Your task to perform on an android device: install app "Google Keep" Image 0: 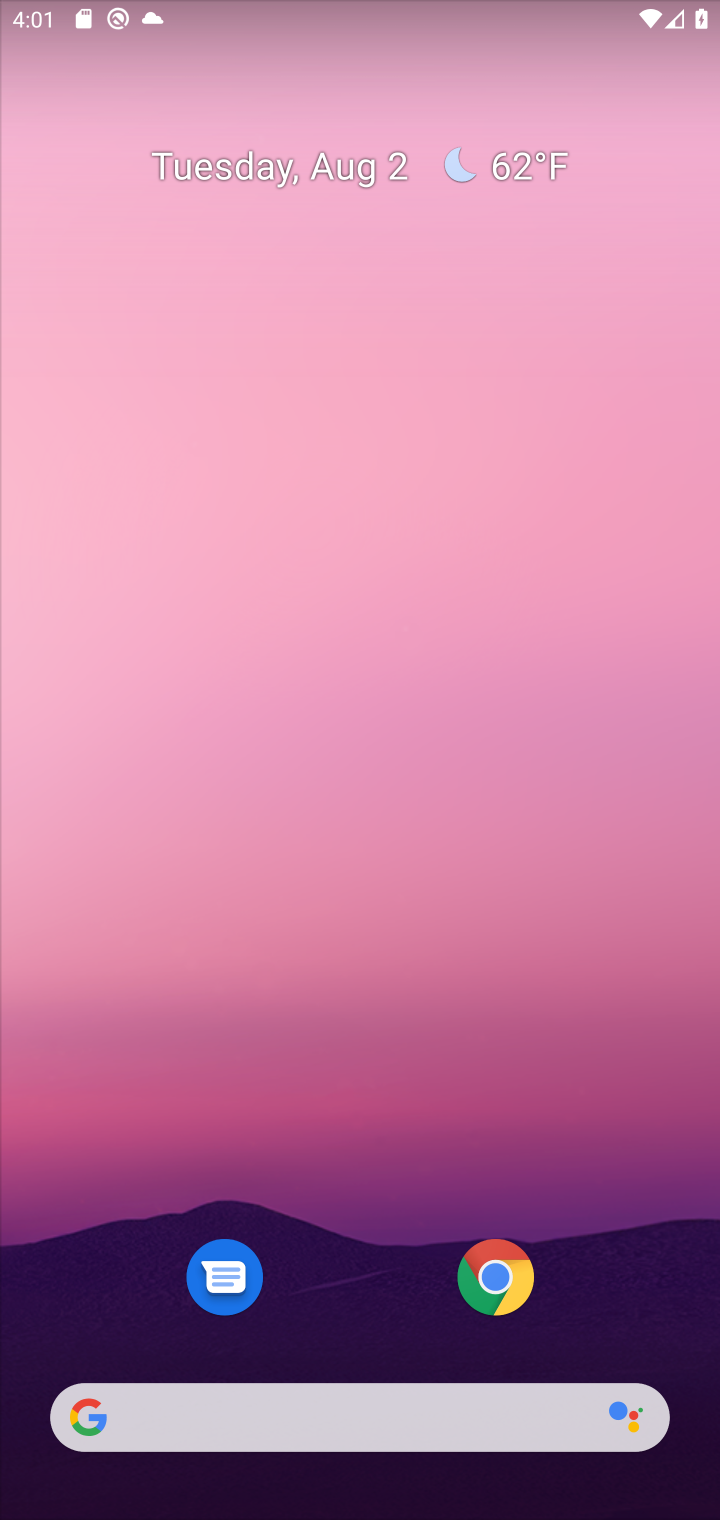
Step 0: drag from (367, 1277) to (412, 120)
Your task to perform on an android device: install app "Google Keep" Image 1: 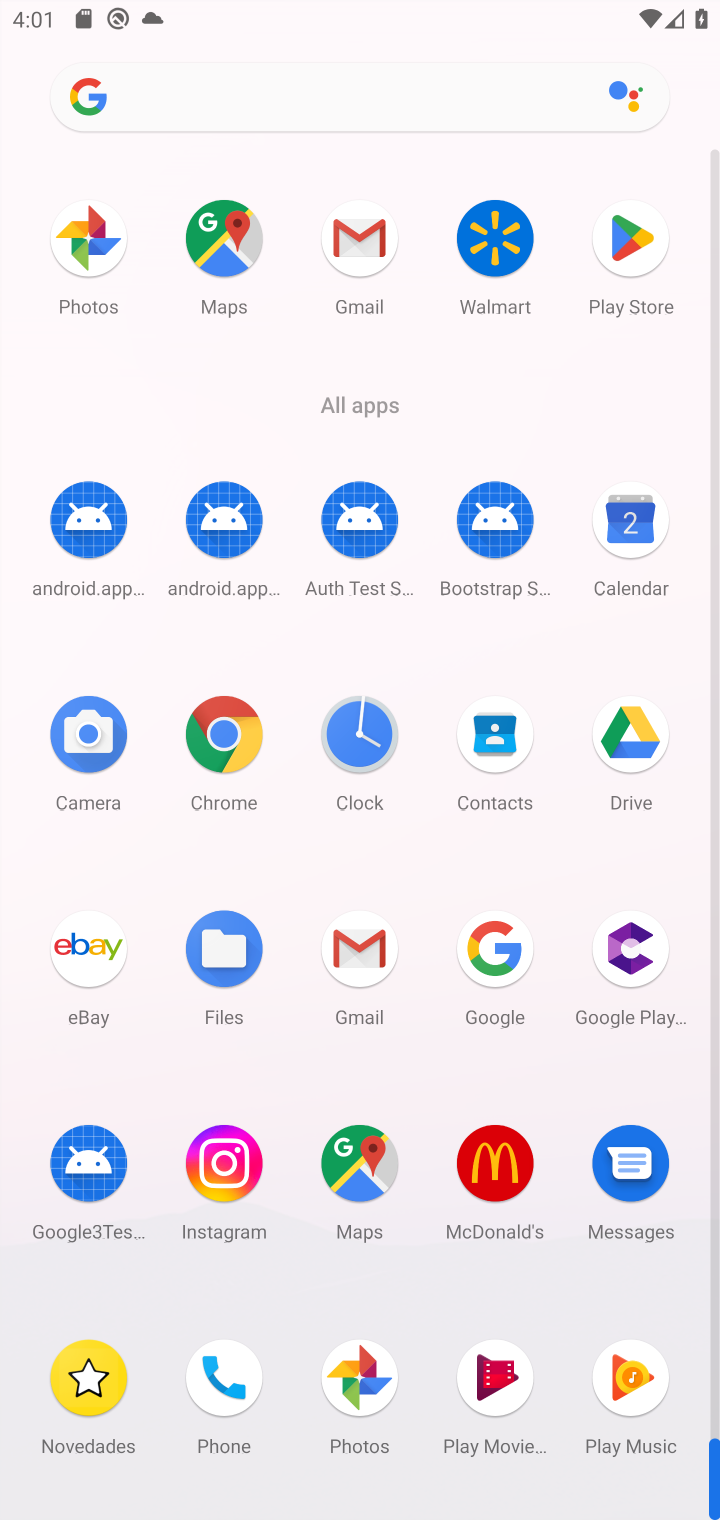
Step 1: drag from (565, 1051) to (530, 187)
Your task to perform on an android device: install app "Google Keep" Image 2: 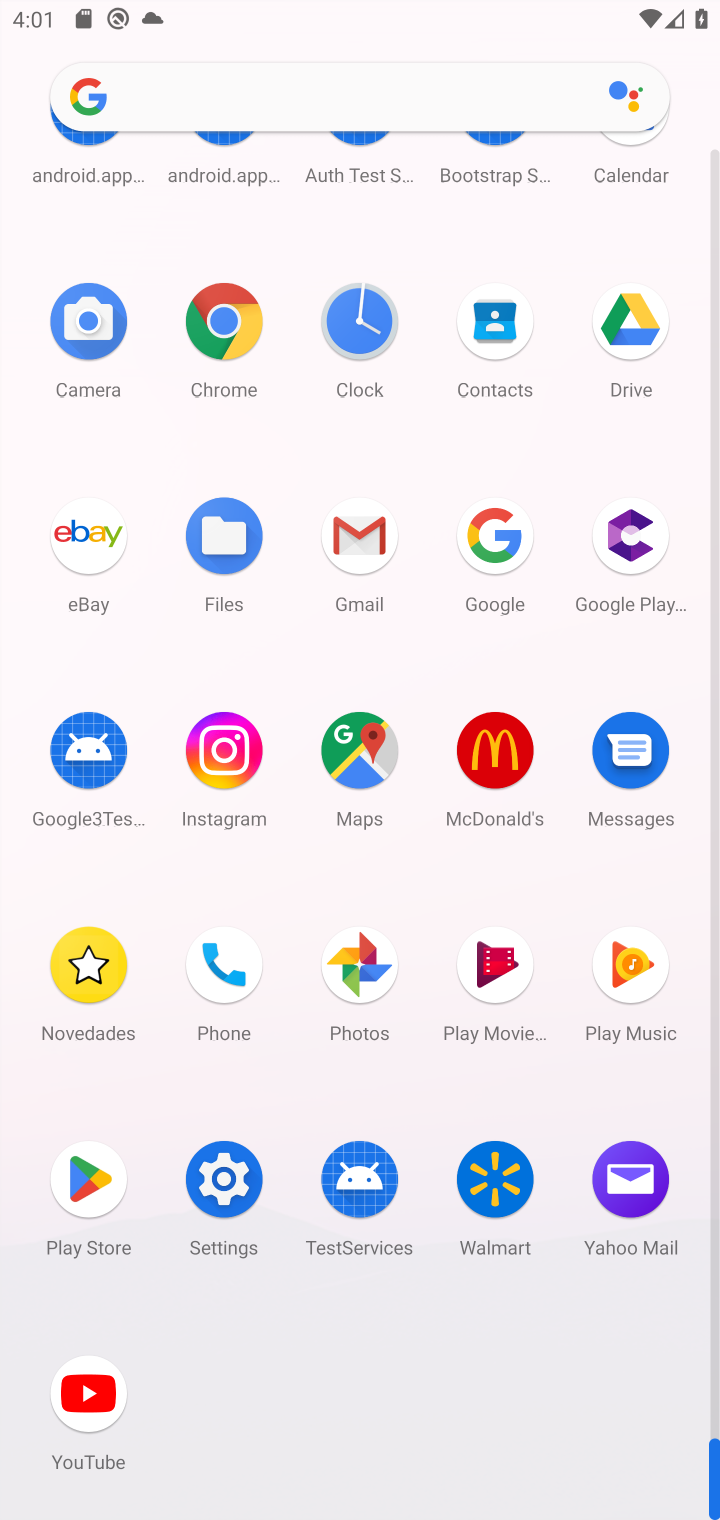
Step 2: click (84, 1161)
Your task to perform on an android device: install app "Google Keep" Image 3: 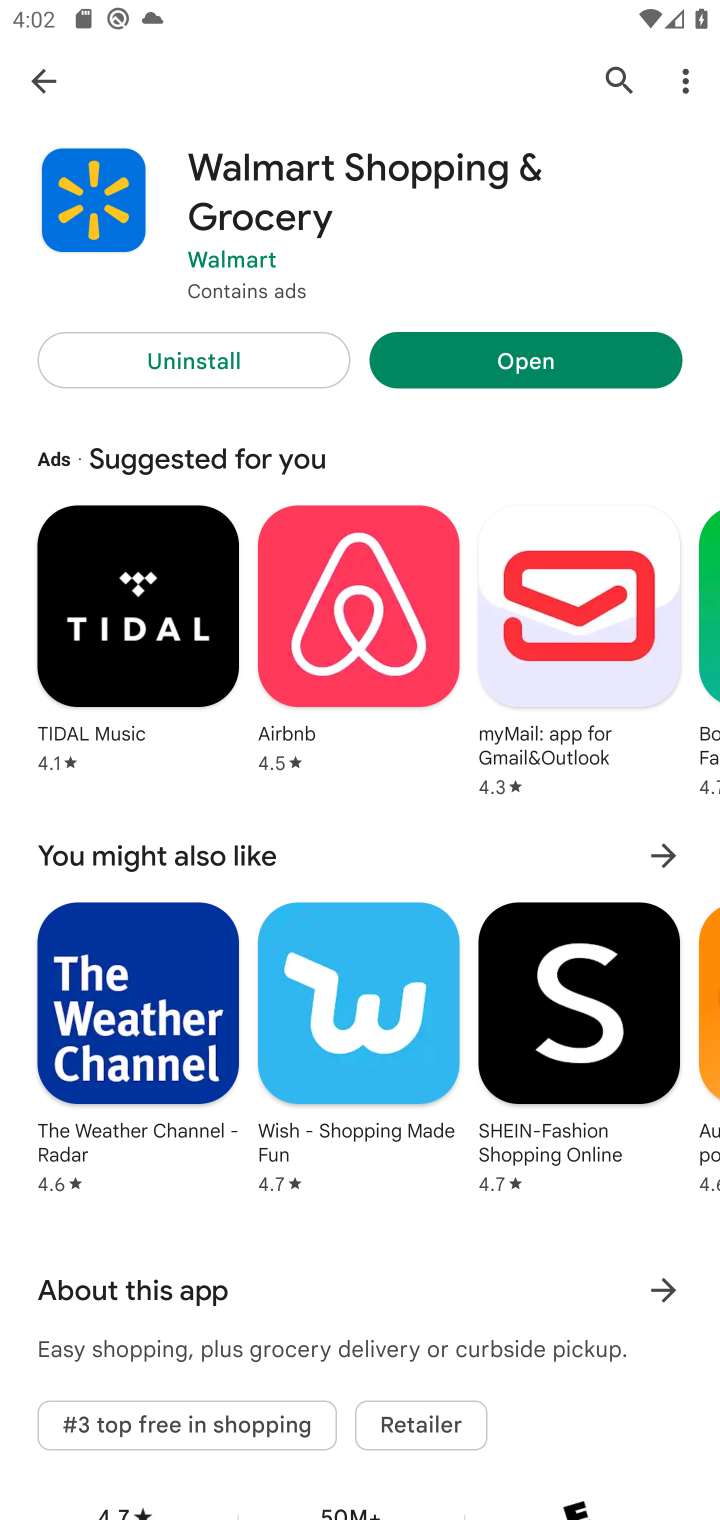
Step 3: press back button
Your task to perform on an android device: install app "Google Keep" Image 4: 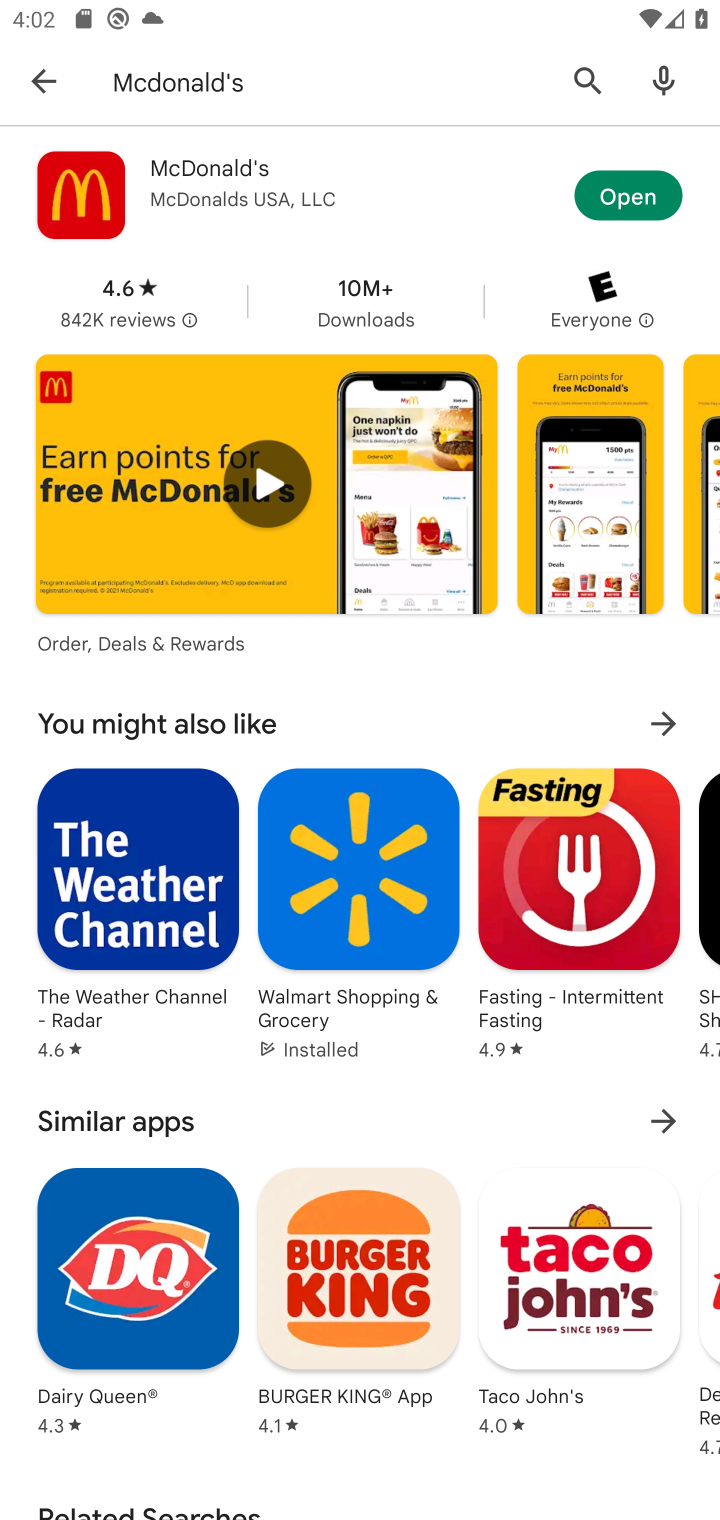
Step 4: click (160, 67)
Your task to perform on an android device: install app "Google Keep" Image 5: 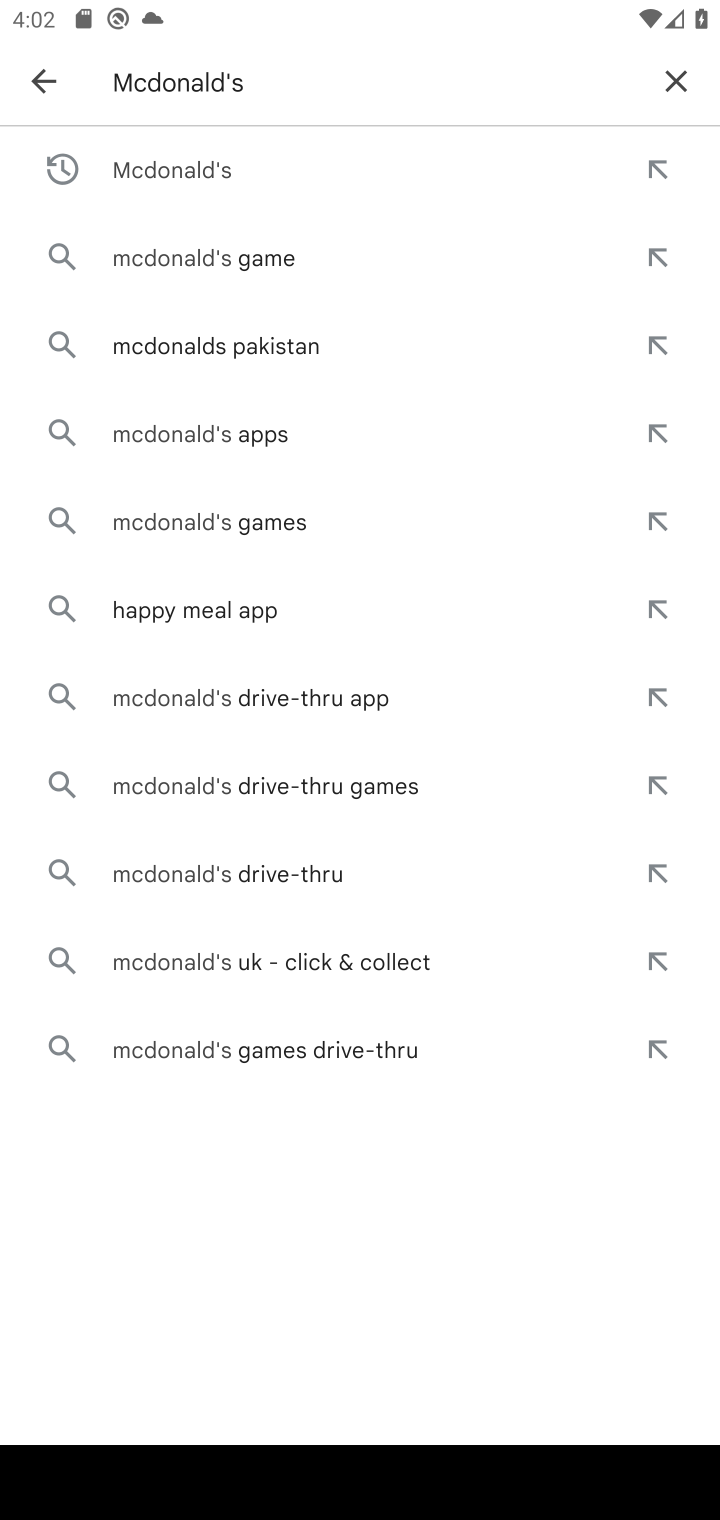
Step 5: click (680, 78)
Your task to perform on an android device: install app "Google Keep" Image 6: 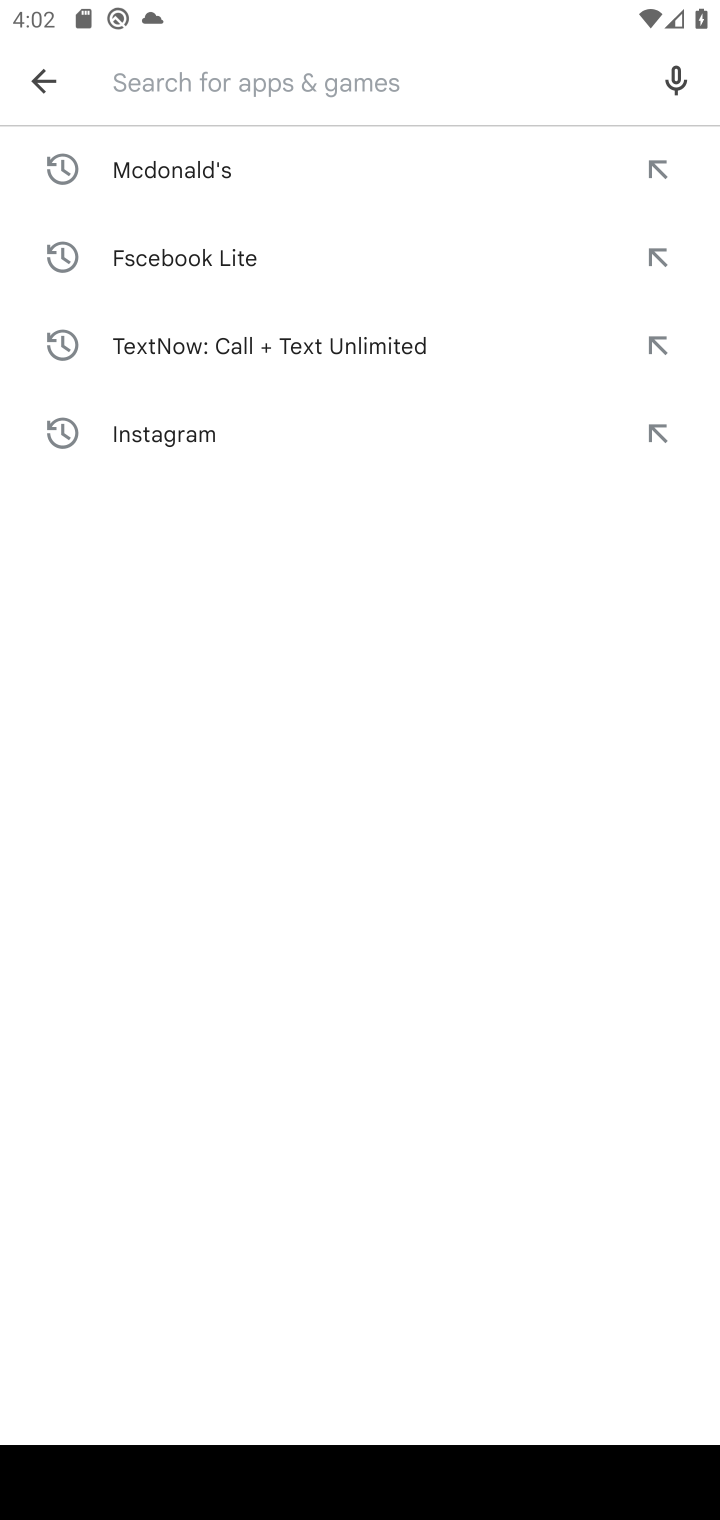
Step 6: type "Google Keep"
Your task to perform on an android device: install app "Google Keep" Image 7: 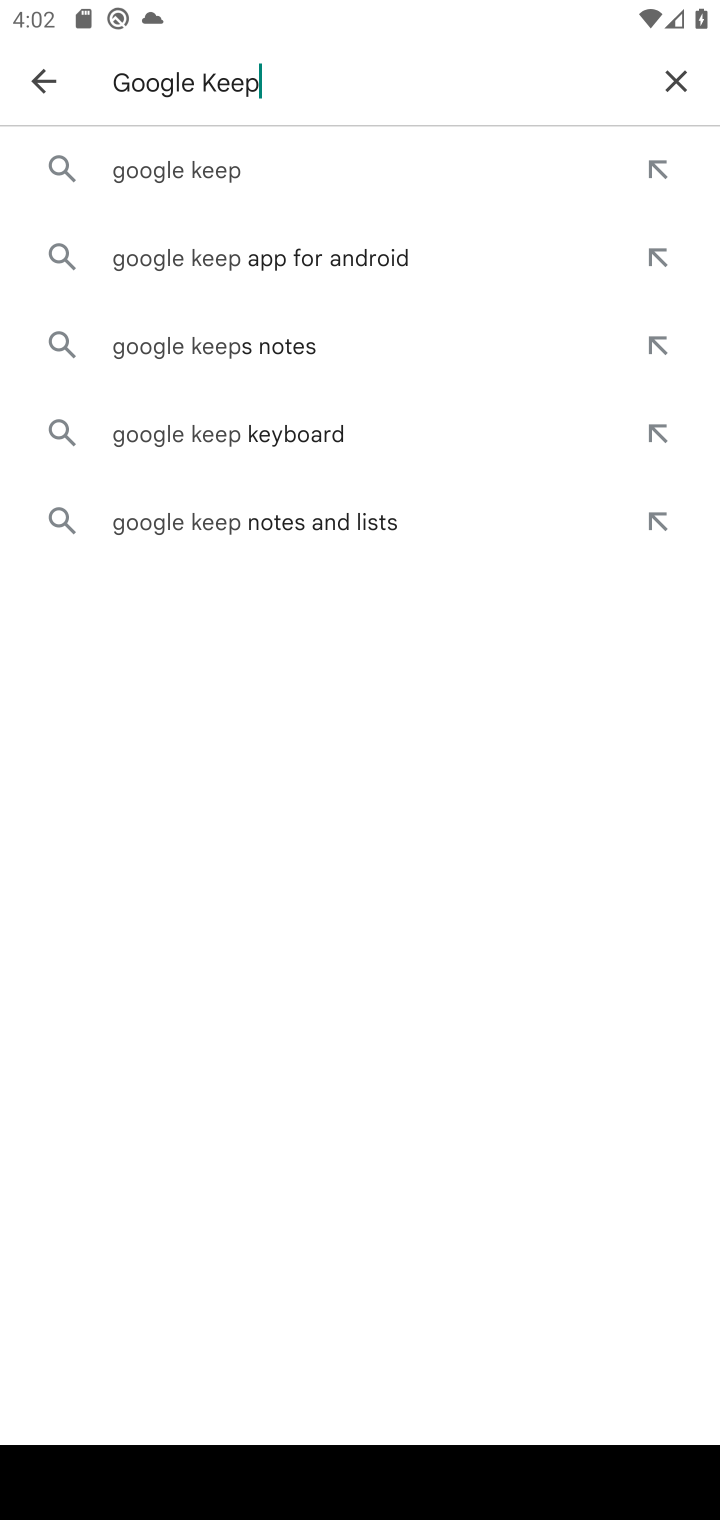
Step 7: press enter
Your task to perform on an android device: install app "Google Keep" Image 8: 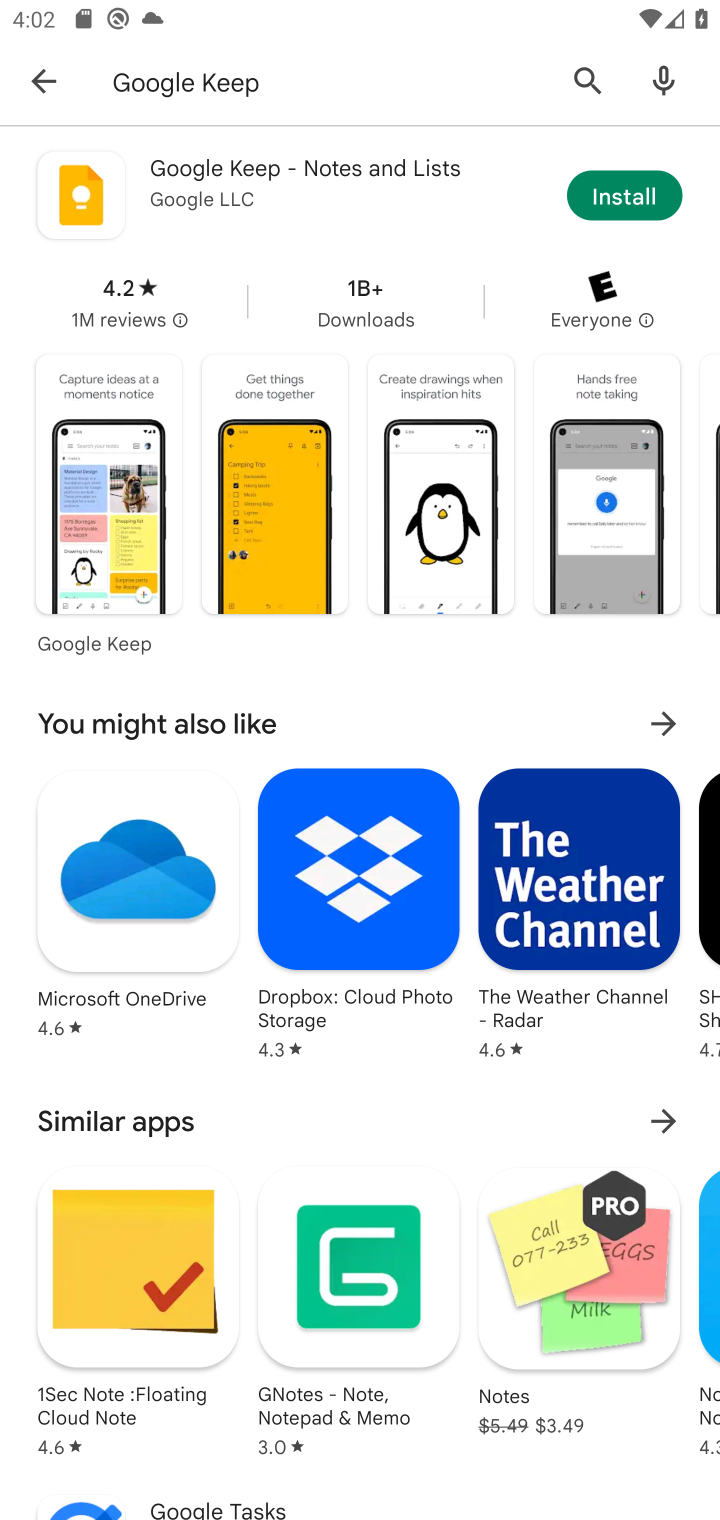
Step 8: click (599, 182)
Your task to perform on an android device: install app "Google Keep" Image 9: 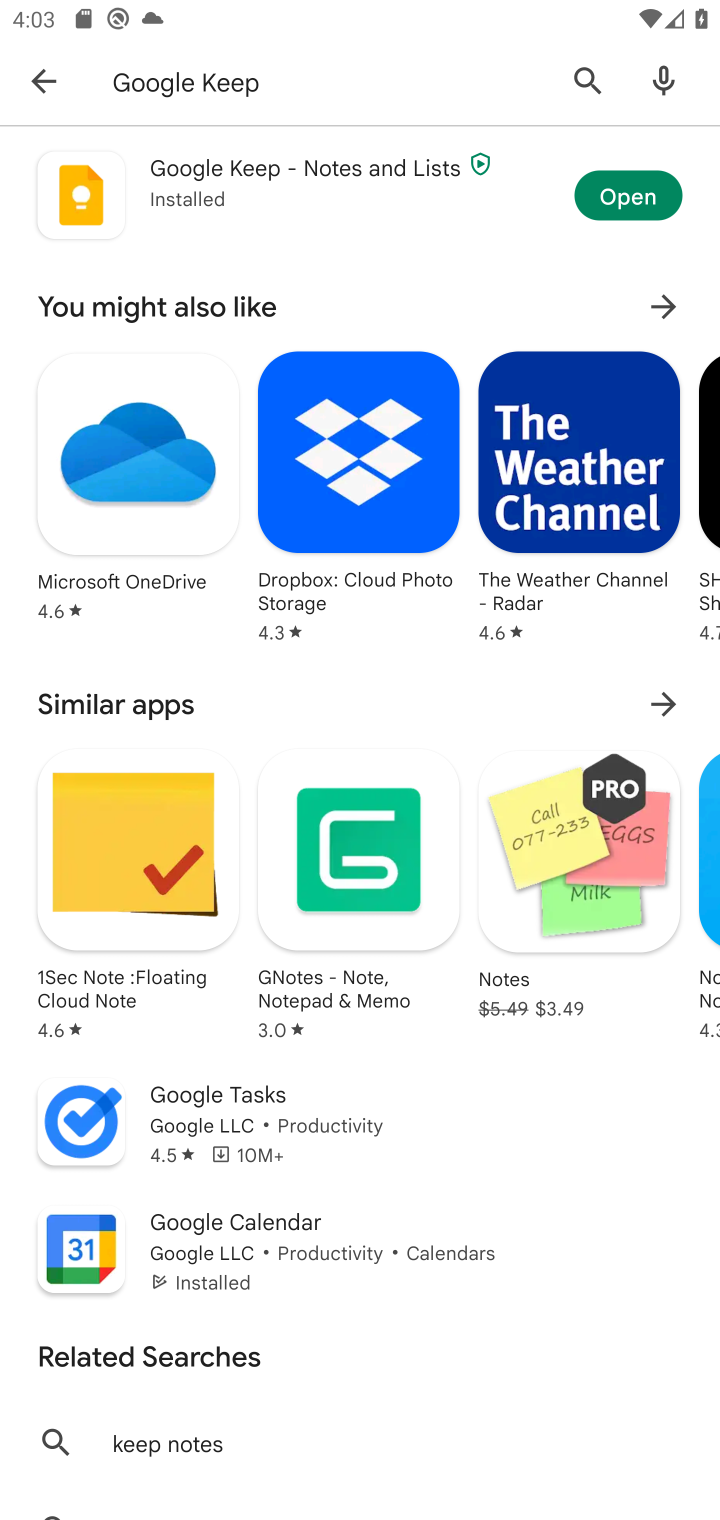
Step 9: task complete